Your task to perform on an android device: Open Chrome and go to the settings page Image 0: 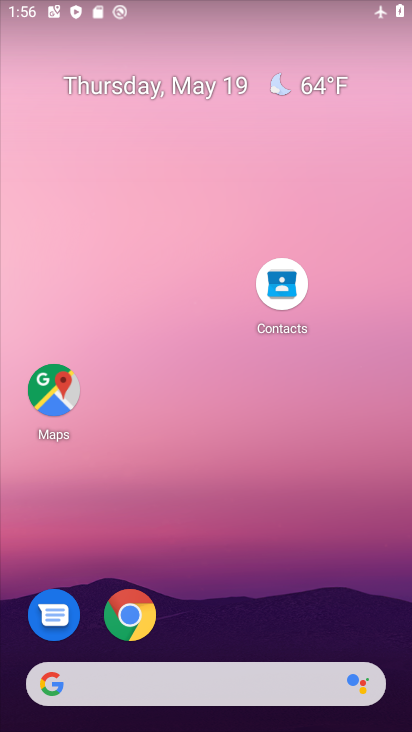
Step 0: drag from (205, 643) to (366, 131)
Your task to perform on an android device: Open Chrome and go to the settings page Image 1: 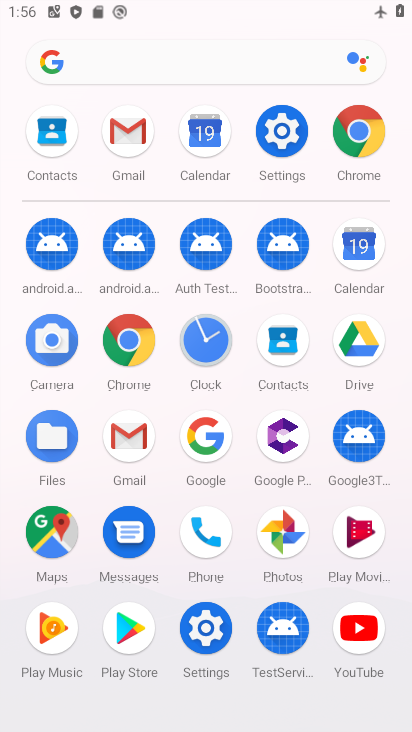
Step 1: click (130, 373)
Your task to perform on an android device: Open Chrome and go to the settings page Image 2: 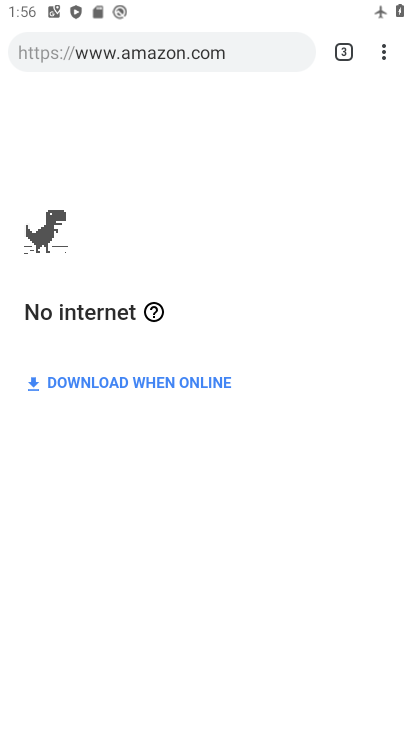
Step 2: click (383, 60)
Your task to perform on an android device: Open Chrome and go to the settings page Image 3: 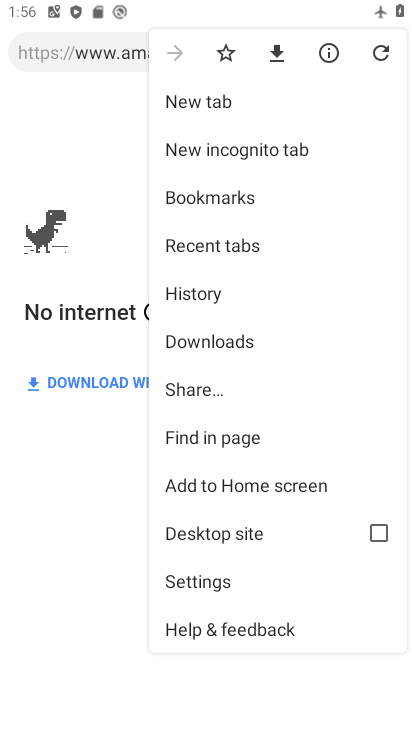
Step 3: click (211, 591)
Your task to perform on an android device: Open Chrome and go to the settings page Image 4: 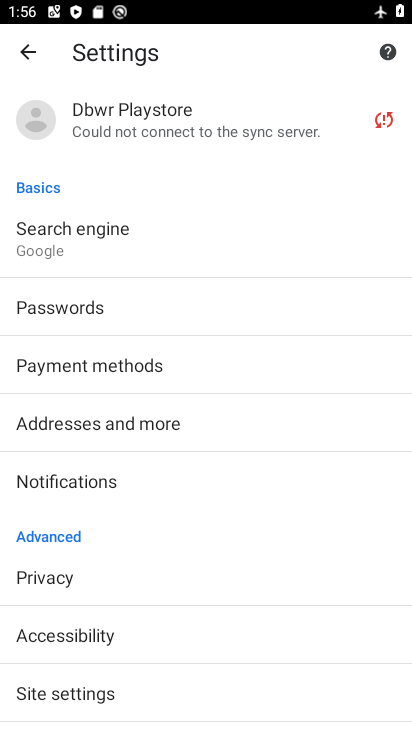
Step 4: task complete